Your task to perform on an android device: Set the phone to "Do not disturb". Image 0: 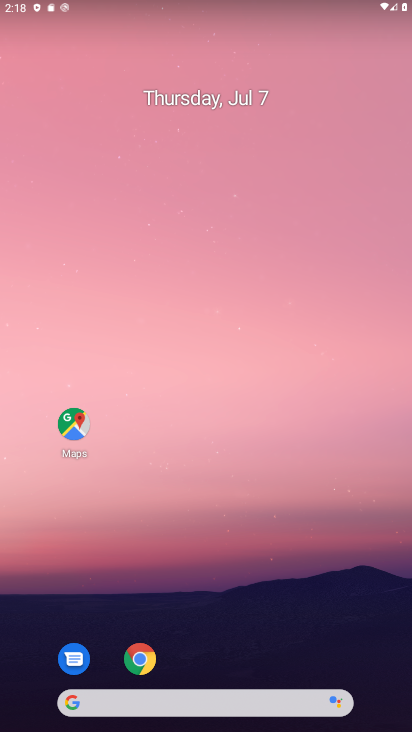
Step 0: drag from (208, 657) to (234, 52)
Your task to perform on an android device: Set the phone to "Do not disturb". Image 1: 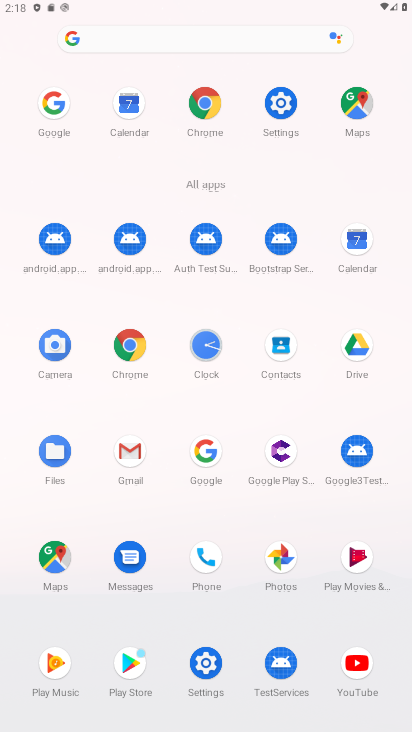
Step 1: drag from (184, 2) to (177, 361)
Your task to perform on an android device: Set the phone to "Do not disturb". Image 2: 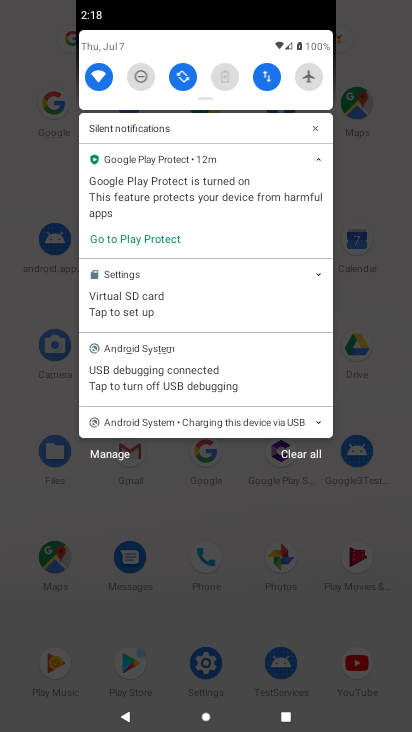
Step 2: click (141, 68)
Your task to perform on an android device: Set the phone to "Do not disturb". Image 3: 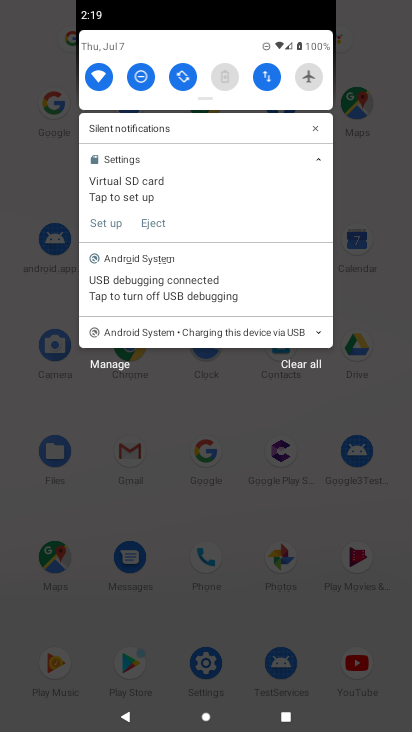
Step 3: click (303, 365)
Your task to perform on an android device: Set the phone to "Do not disturb". Image 4: 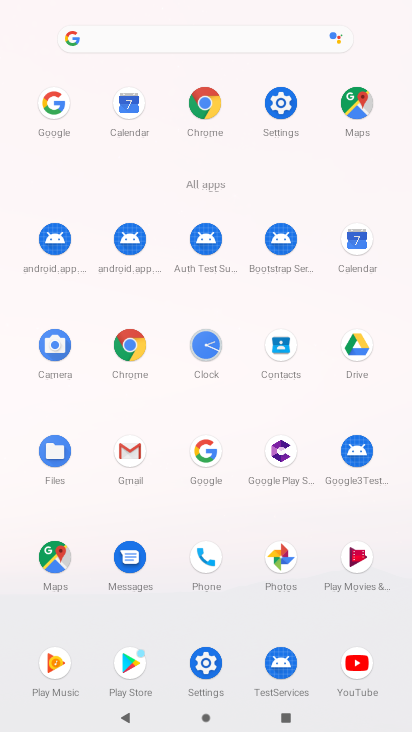
Step 4: task complete